Your task to perform on an android device: Go to privacy settings Image 0: 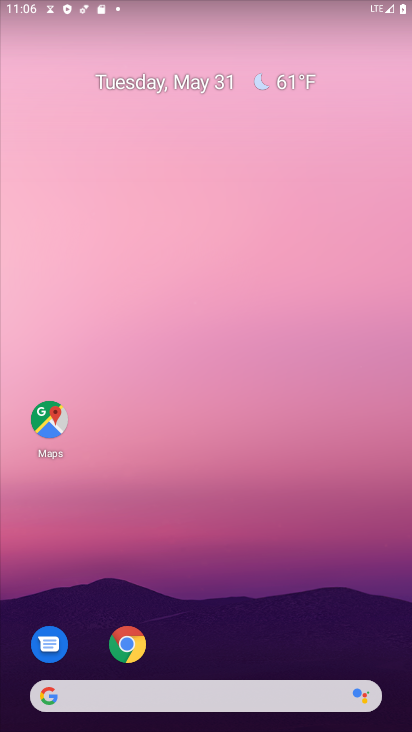
Step 0: drag from (209, 635) to (284, 41)
Your task to perform on an android device: Go to privacy settings Image 1: 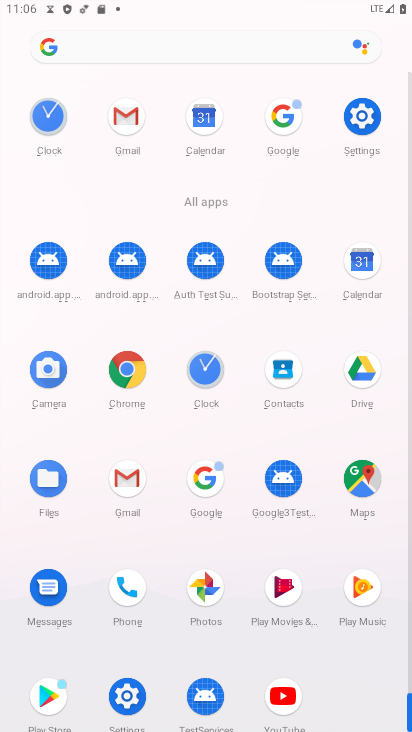
Step 1: click (368, 120)
Your task to perform on an android device: Go to privacy settings Image 2: 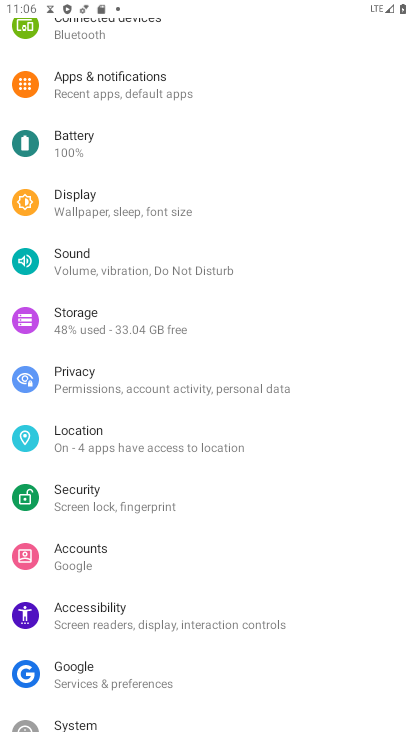
Step 2: click (87, 369)
Your task to perform on an android device: Go to privacy settings Image 3: 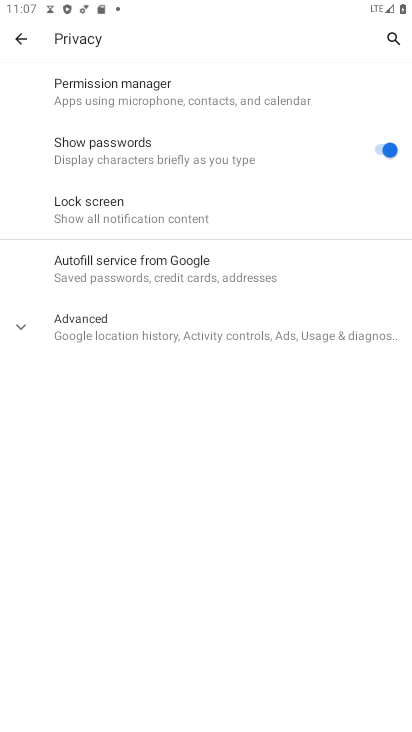
Step 3: task complete